Your task to perform on an android device: check google app version Image 0: 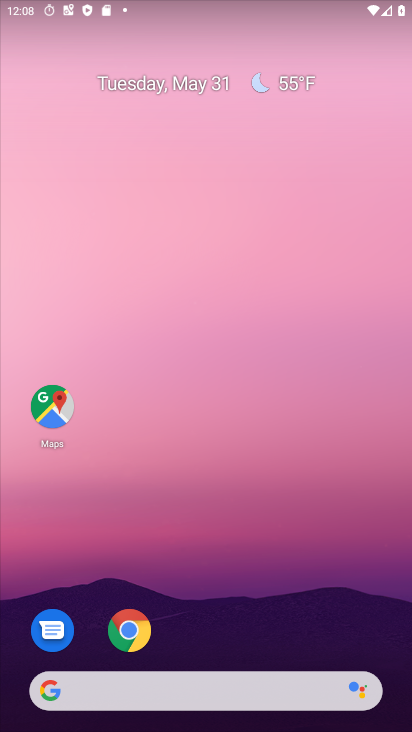
Step 0: drag from (215, 658) to (281, 125)
Your task to perform on an android device: check google app version Image 1: 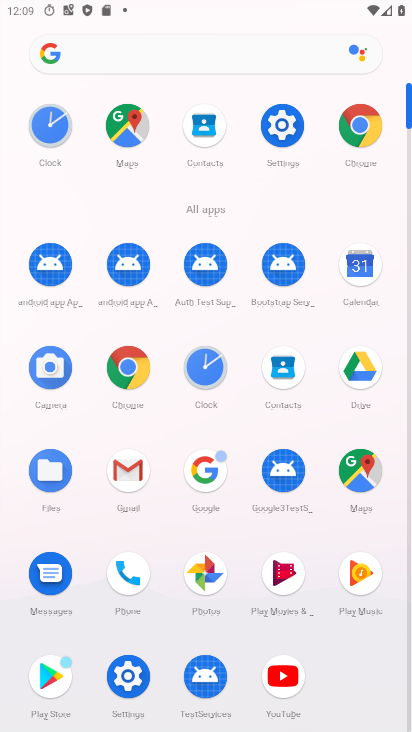
Step 1: drag from (211, 471) to (247, 447)
Your task to perform on an android device: check google app version Image 2: 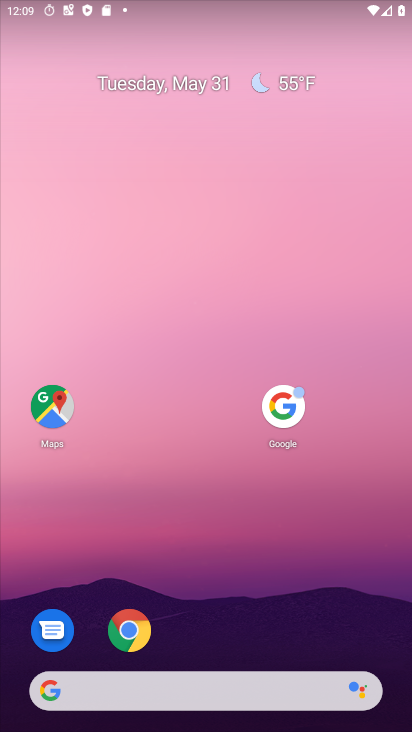
Step 2: click (284, 404)
Your task to perform on an android device: check google app version Image 3: 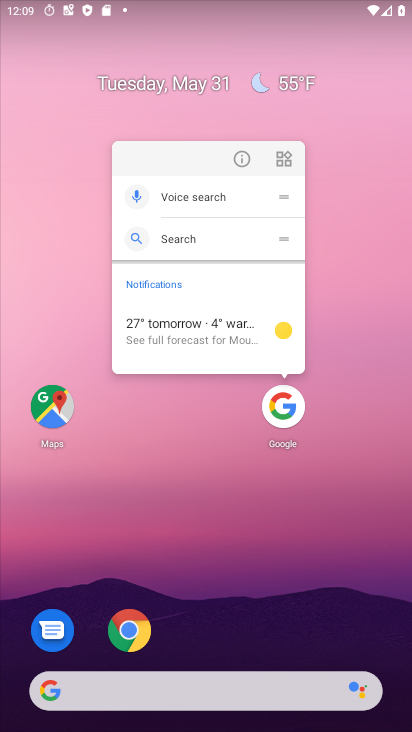
Step 3: click (244, 155)
Your task to perform on an android device: check google app version Image 4: 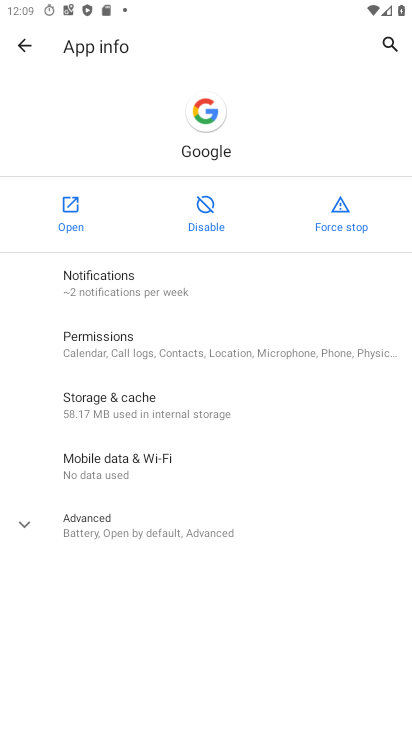
Step 4: click (140, 532)
Your task to perform on an android device: check google app version Image 5: 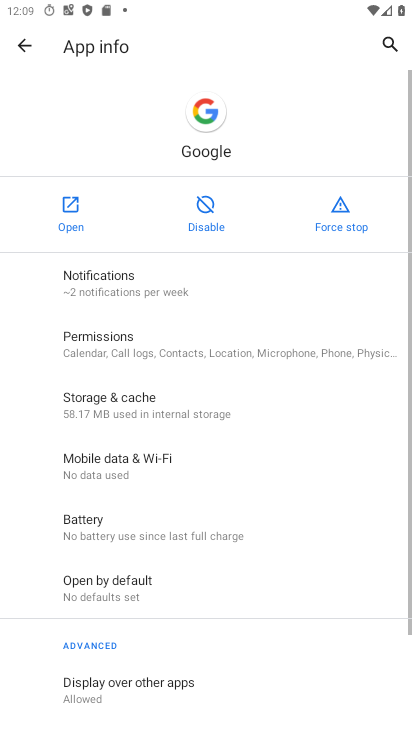
Step 5: task complete